Your task to perform on an android device: Go to internet settings Image 0: 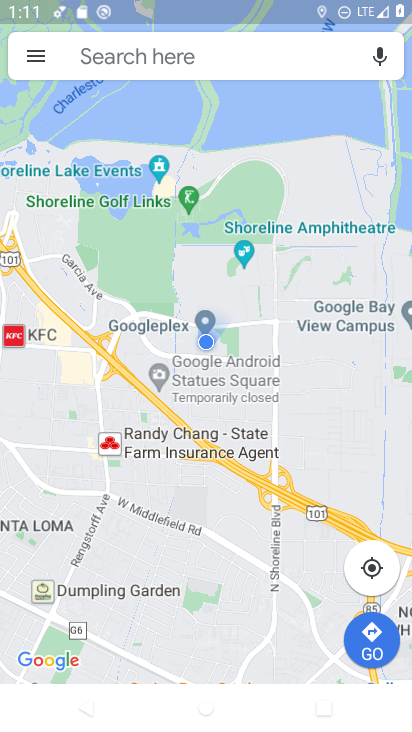
Step 0: press home button
Your task to perform on an android device: Go to internet settings Image 1: 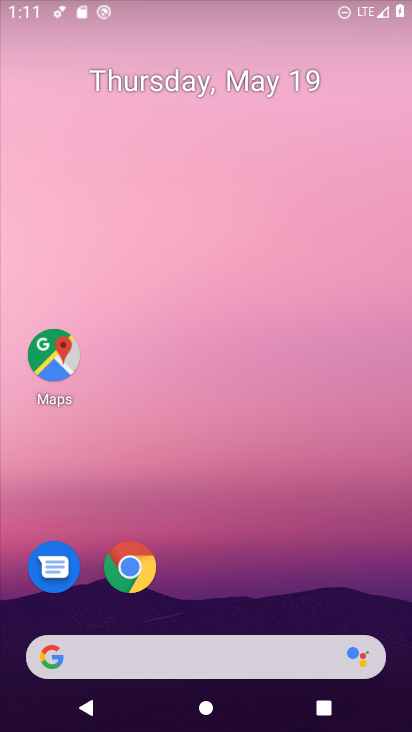
Step 1: drag from (174, 533) to (211, 116)
Your task to perform on an android device: Go to internet settings Image 2: 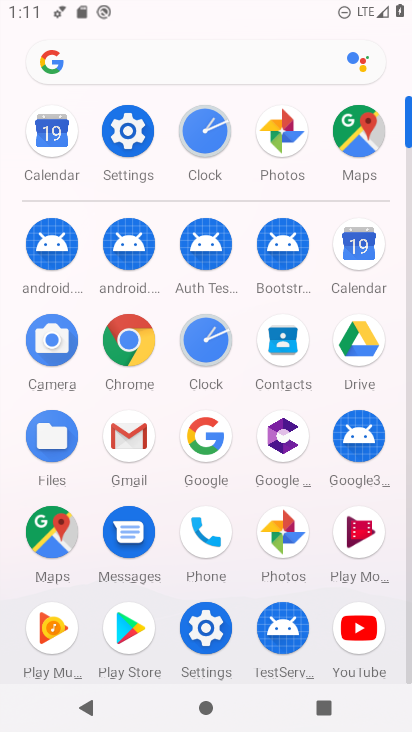
Step 2: click (130, 131)
Your task to perform on an android device: Go to internet settings Image 3: 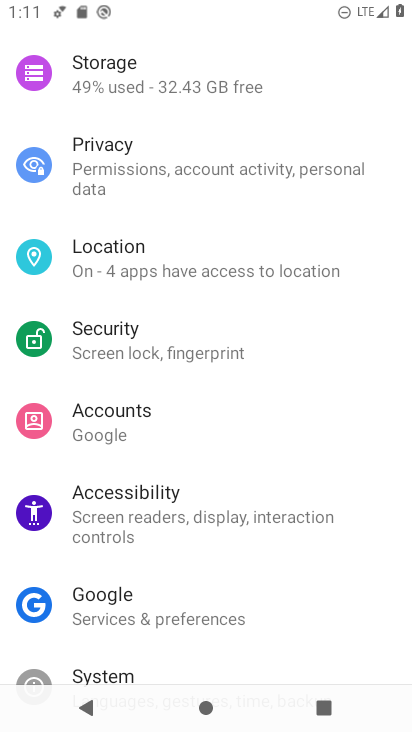
Step 3: drag from (187, 134) to (288, 610)
Your task to perform on an android device: Go to internet settings Image 4: 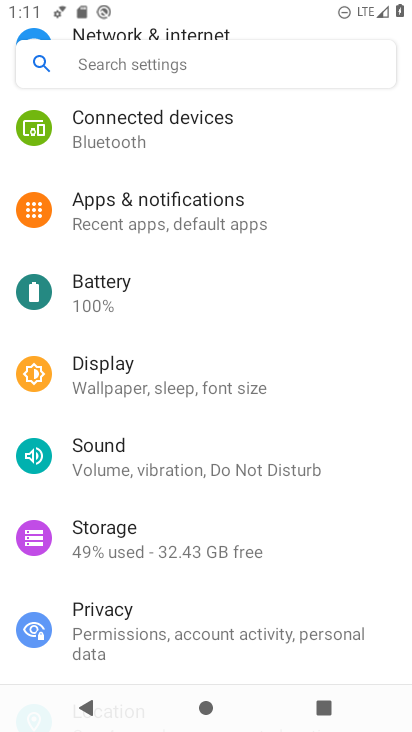
Step 4: drag from (214, 262) to (260, 548)
Your task to perform on an android device: Go to internet settings Image 5: 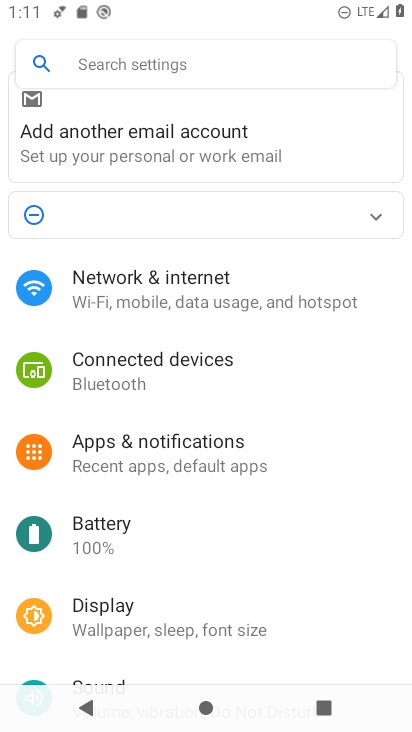
Step 5: click (197, 297)
Your task to perform on an android device: Go to internet settings Image 6: 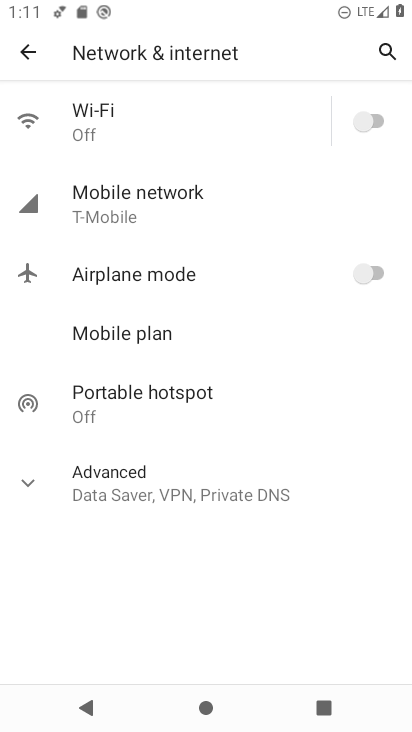
Step 6: task complete